Your task to perform on an android device: all mails in gmail Image 0: 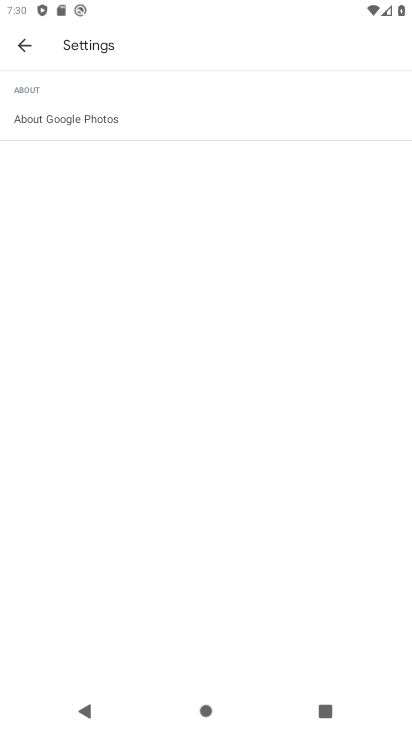
Step 0: press home button
Your task to perform on an android device: all mails in gmail Image 1: 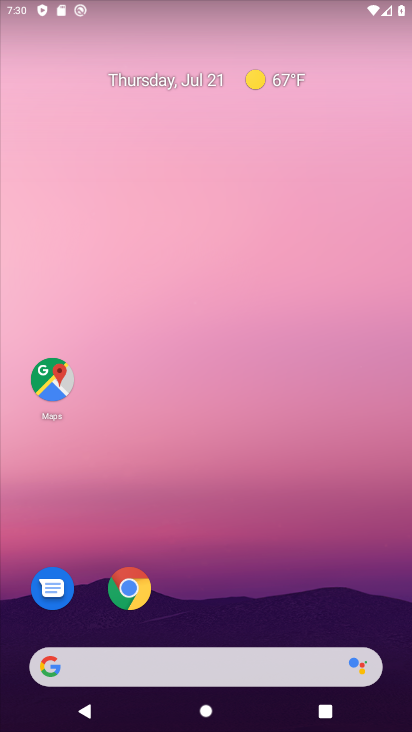
Step 1: click (297, 275)
Your task to perform on an android device: all mails in gmail Image 2: 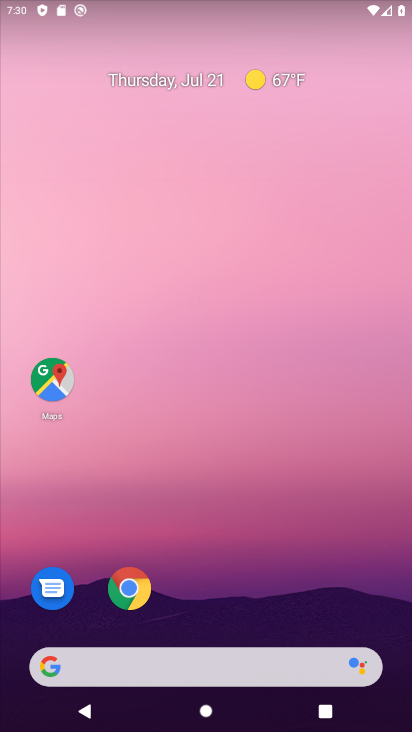
Step 2: drag from (205, 645) to (194, 58)
Your task to perform on an android device: all mails in gmail Image 3: 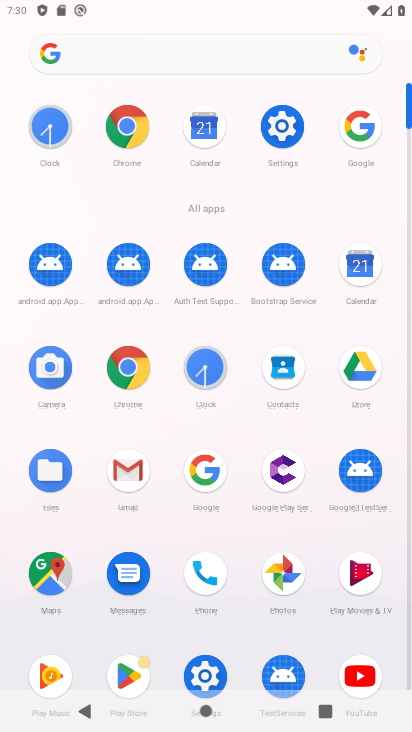
Step 3: click (142, 481)
Your task to perform on an android device: all mails in gmail Image 4: 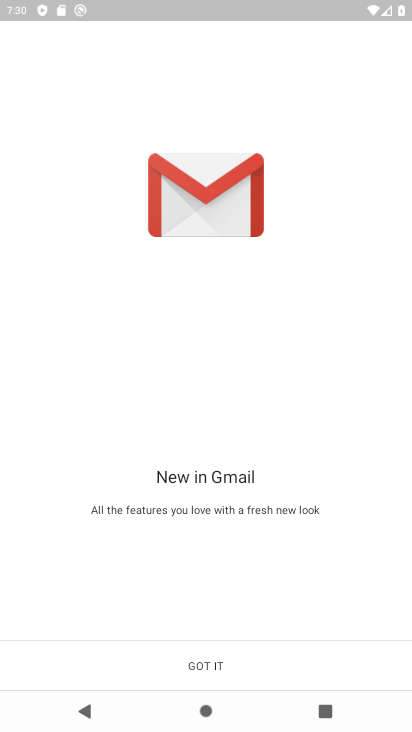
Step 4: click (202, 670)
Your task to perform on an android device: all mails in gmail Image 5: 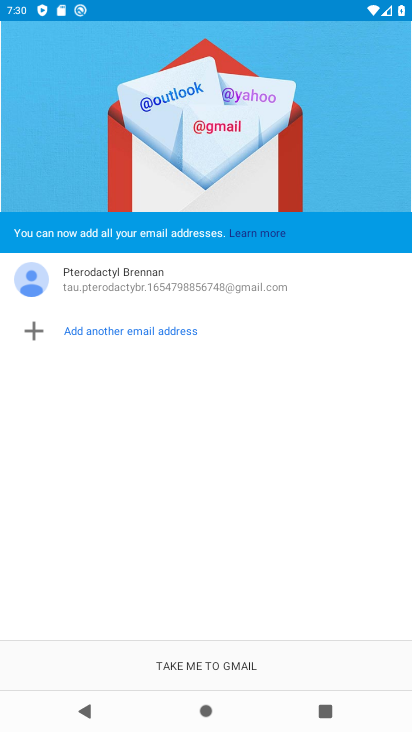
Step 5: click (202, 670)
Your task to perform on an android device: all mails in gmail Image 6: 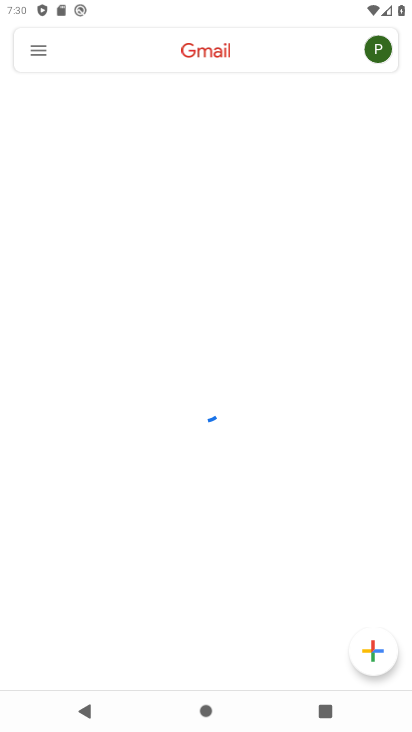
Step 6: click (36, 57)
Your task to perform on an android device: all mails in gmail Image 7: 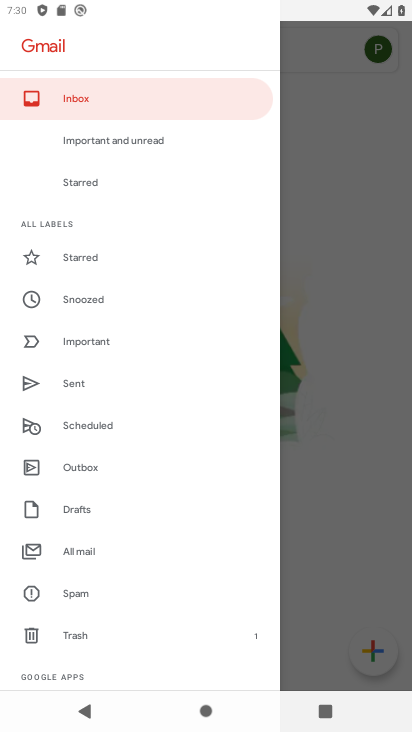
Step 7: click (84, 553)
Your task to perform on an android device: all mails in gmail Image 8: 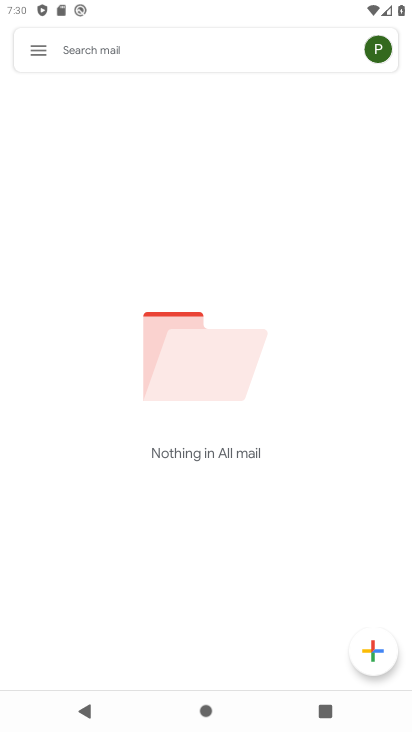
Step 8: task complete